Your task to perform on an android device: Go to Yahoo.com Image 0: 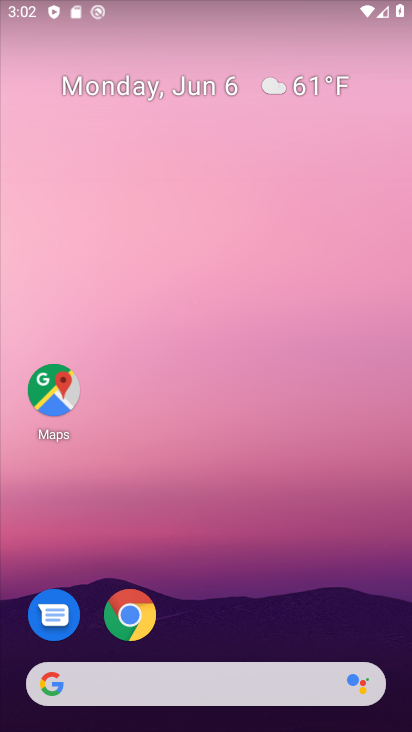
Step 0: drag from (204, 660) to (200, 54)
Your task to perform on an android device: Go to Yahoo.com Image 1: 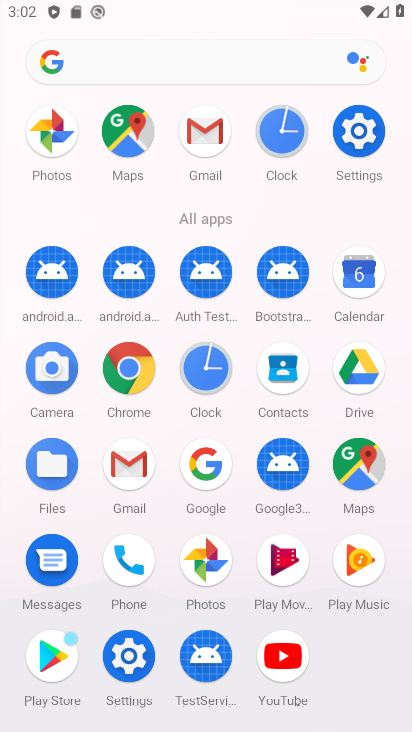
Step 1: click (124, 378)
Your task to perform on an android device: Go to Yahoo.com Image 2: 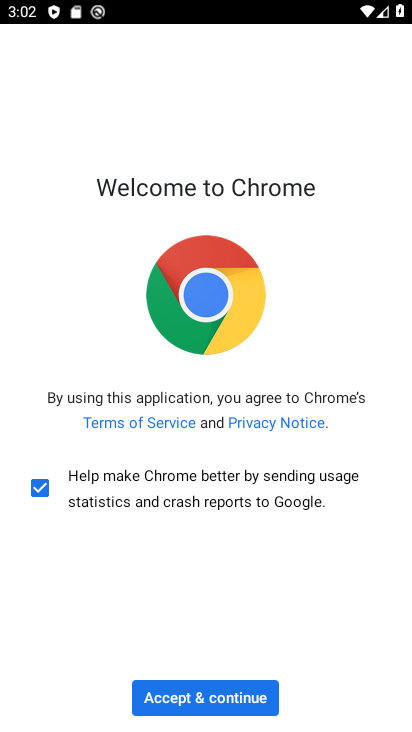
Step 2: click (201, 680)
Your task to perform on an android device: Go to Yahoo.com Image 3: 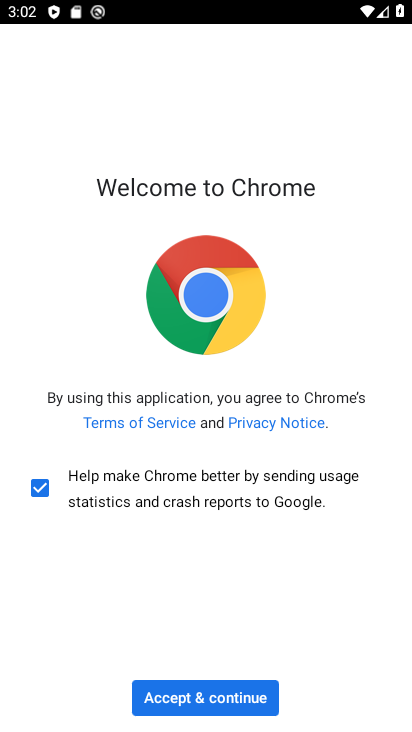
Step 3: click (256, 695)
Your task to perform on an android device: Go to Yahoo.com Image 4: 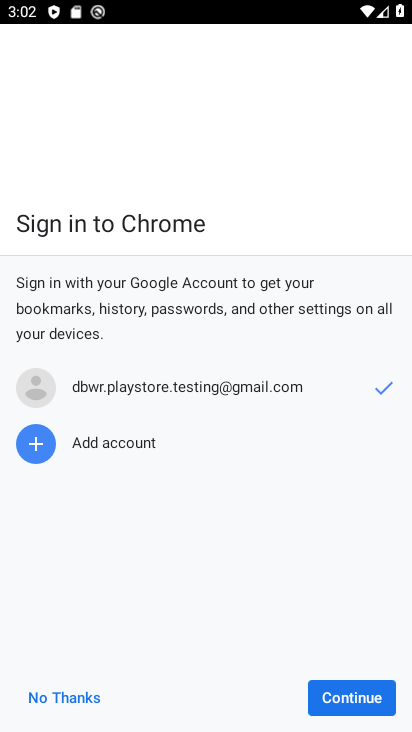
Step 4: click (353, 702)
Your task to perform on an android device: Go to Yahoo.com Image 5: 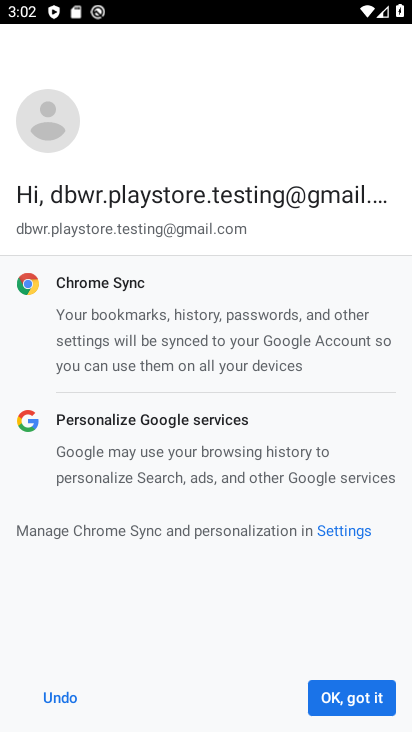
Step 5: click (360, 669)
Your task to perform on an android device: Go to Yahoo.com Image 6: 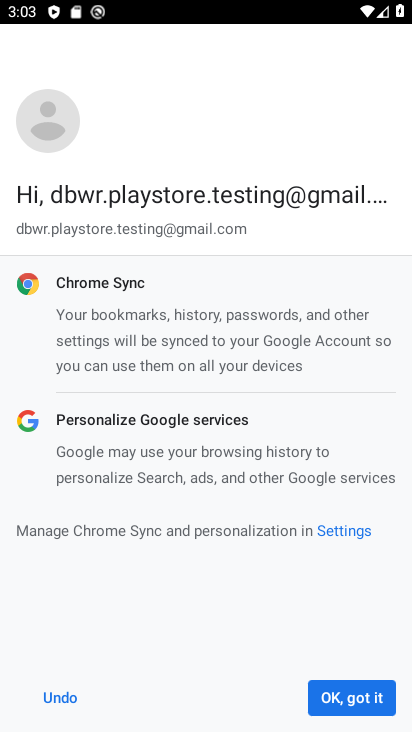
Step 6: click (383, 689)
Your task to perform on an android device: Go to Yahoo.com Image 7: 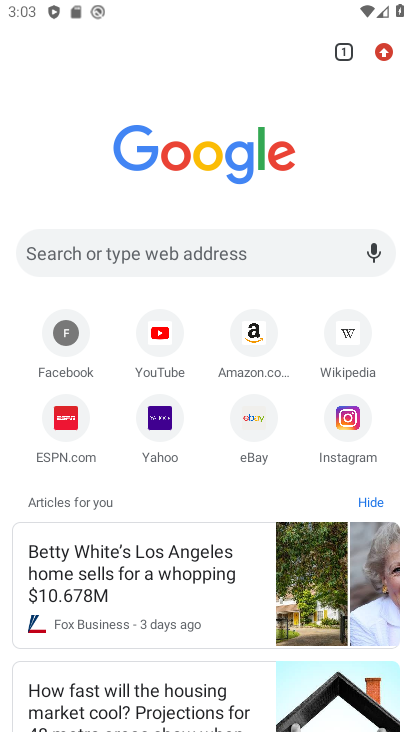
Step 7: click (164, 411)
Your task to perform on an android device: Go to Yahoo.com Image 8: 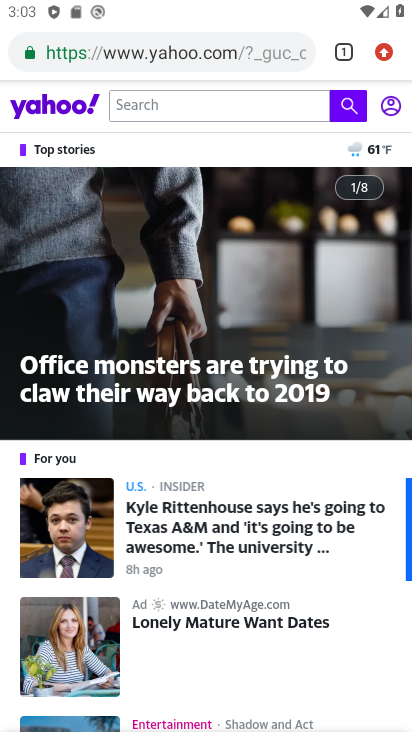
Step 8: task complete